Your task to perform on an android device: toggle data saver in the chrome app Image 0: 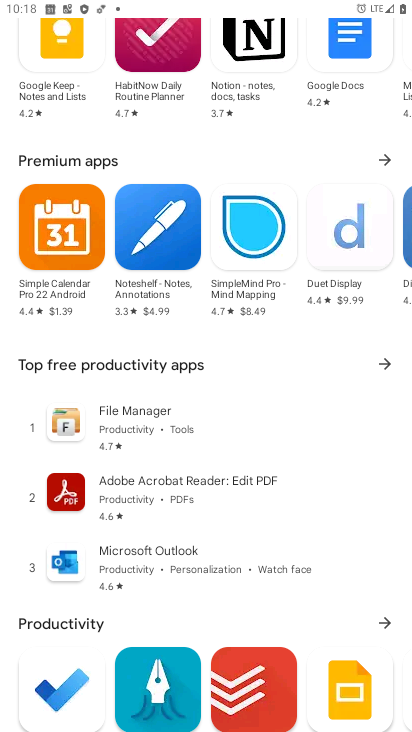
Step 0: press home button
Your task to perform on an android device: toggle data saver in the chrome app Image 1: 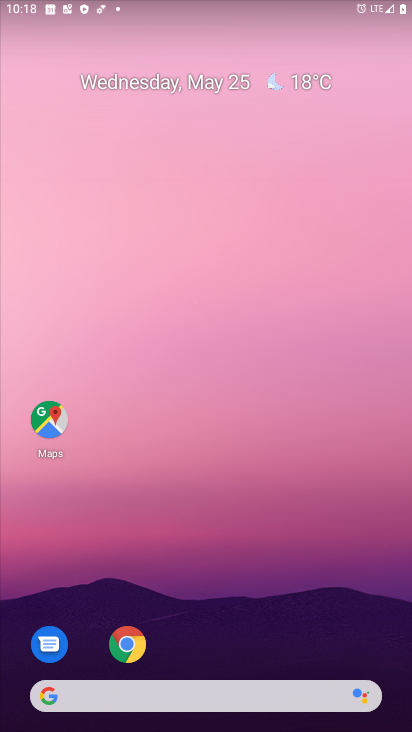
Step 1: click (123, 636)
Your task to perform on an android device: toggle data saver in the chrome app Image 2: 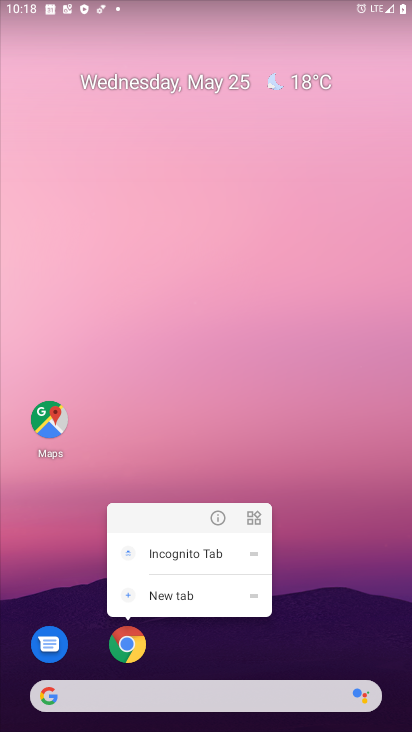
Step 2: click (122, 635)
Your task to perform on an android device: toggle data saver in the chrome app Image 3: 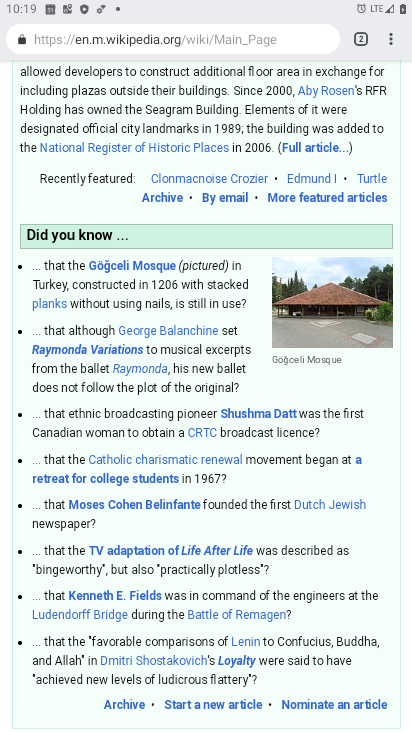
Step 3: click (393, 36)
Your task to perform on an android device: toggle data saver in the chrome app Image 4: 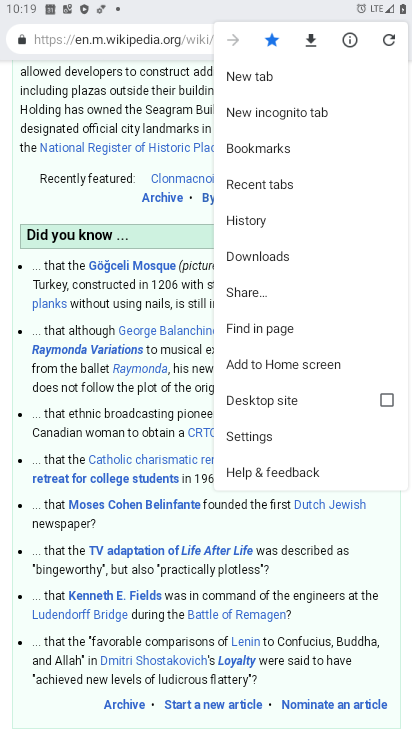
Step 4: click (280, 436)
Your task to perform on an android device: toggle data saver in the chrome app Image 5: 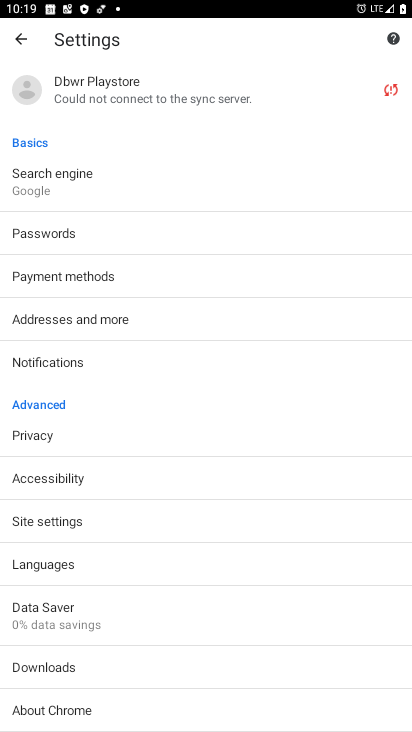
Step 5: click (103, 605)
Your task to perform on an android device: toggle data saver in the chrome app Image 6: 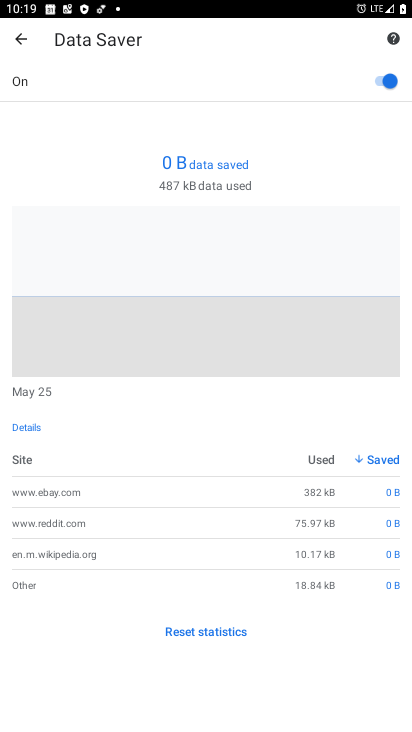
Step 6: click (383, 70)
Your task to perform on an android device: toggle data saver in the chrome app Image 7: 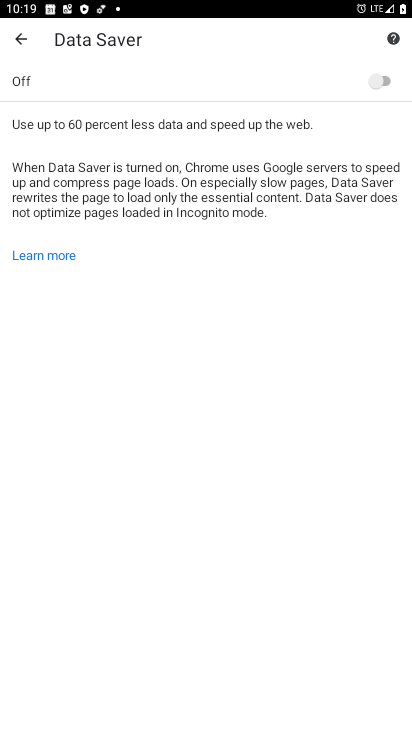
Step 7: task complete